Your task to perform on an android device: check battery use Image 0: 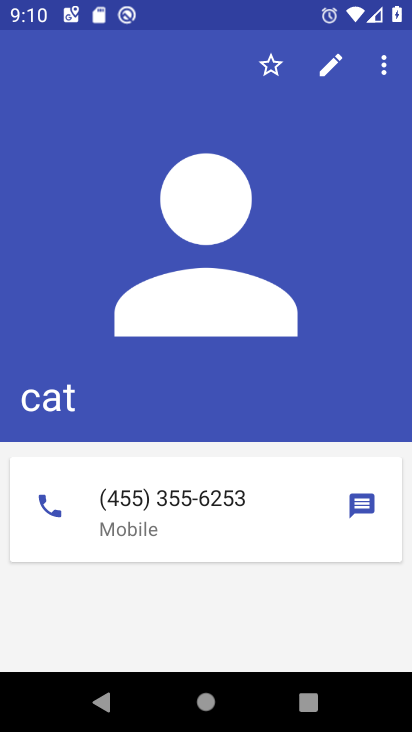
Step 0: press home button
Your task to perform on an android device: check battery use Image 1: 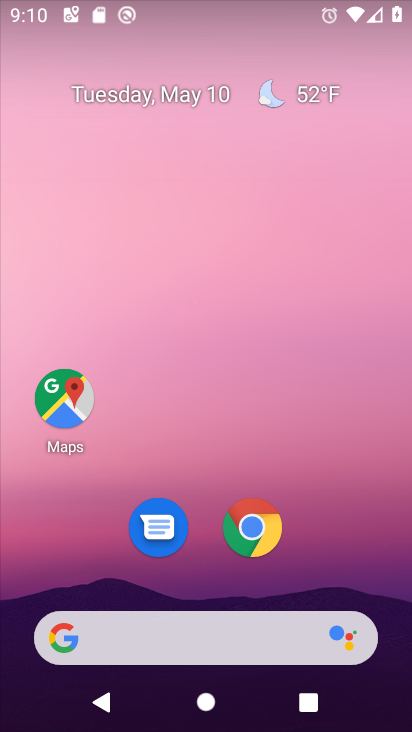
Step 1: drag from (329, 538) to (126, 83)
Your task to perform on an android device: check battery use Image 2: 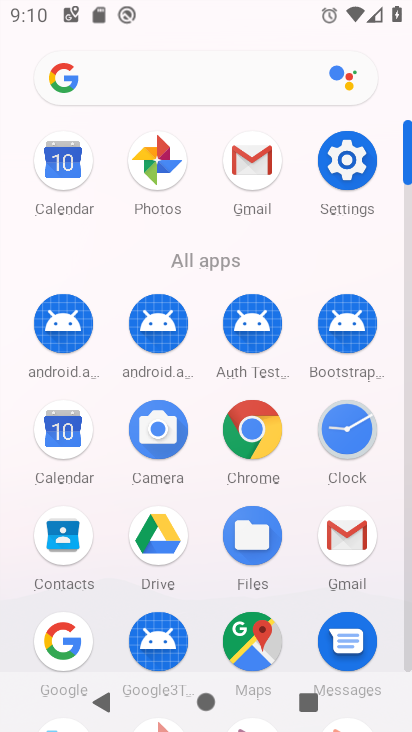
Step 2: click (353, 153)
Your task to perform on an android device: check battery use Image 3: 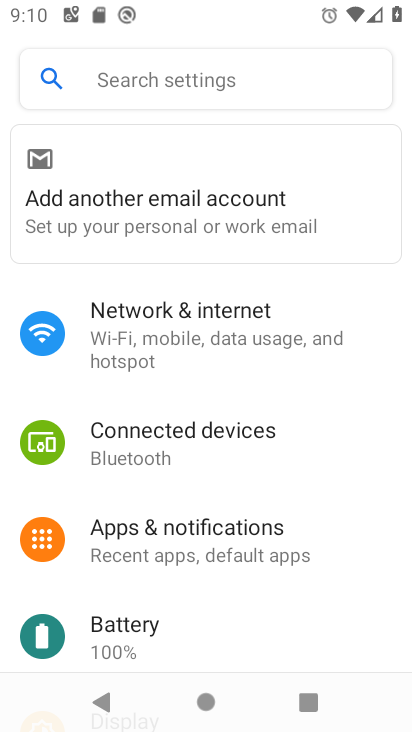
Step 3: click (89, 639)
Your task to perform on an android device: check battery use Image 4: 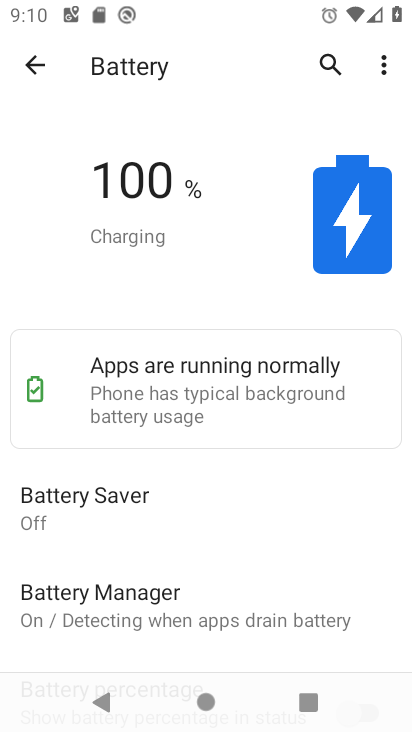
Step 4: task complete